Your task to perform on an android device: manage bookmarks in the chrome app Image 0: 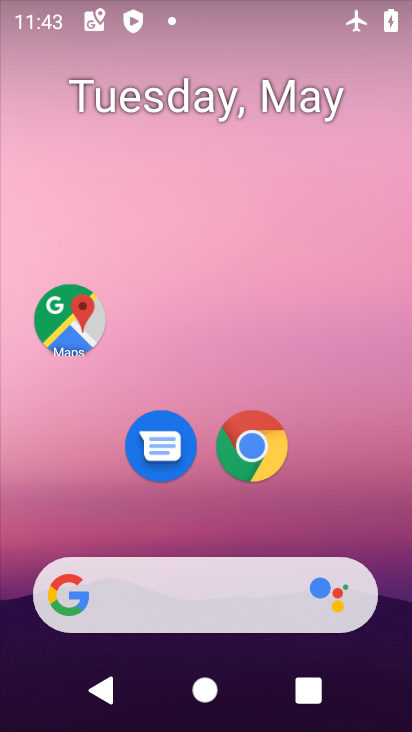
Step 0: click (250, 454)
Your task to perform on an android device: manage bookmarks in the chrome app Image 1: 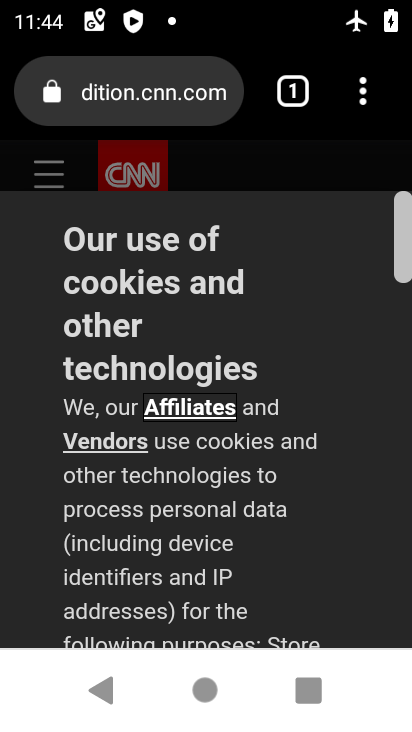
Step 1: click (363, 102)
Your task to perform on an android device: manage bookmarks in the chrome app Image 2: 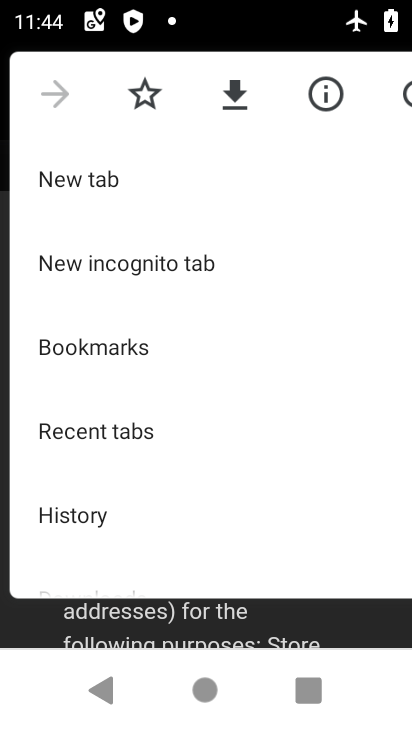
Step 2: click (105, 349)
Your task to perform on an android device: manage bookmarks in the chrome app Image 3: 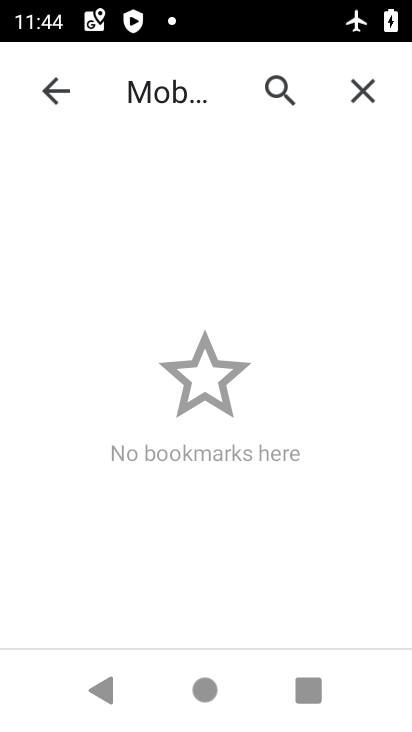
Step 3: task complete